Your task to perform on an android device: turn notification dots off Image 0: 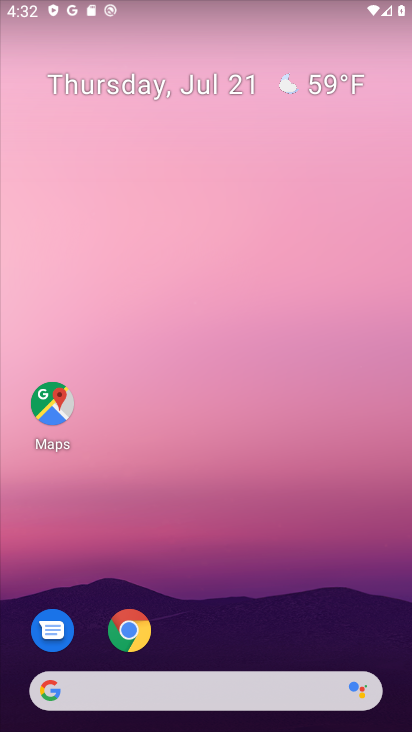
Step 0: drag from (188, 598) to (178, 80)
Your task to perform on an android device: turn notification dots off Image 1: 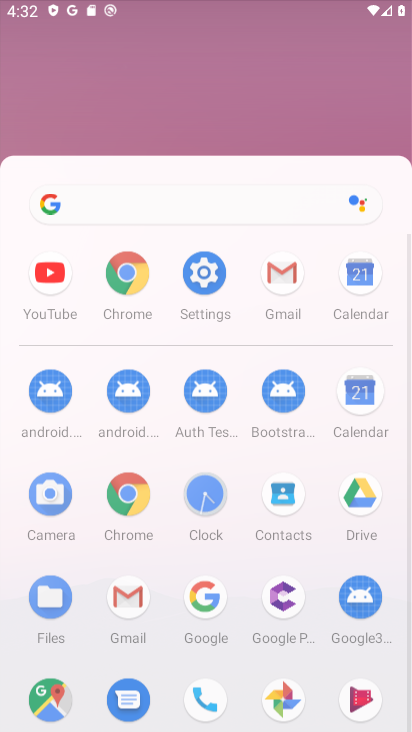
Step 1: drag from (158, 487) to (136, 190)
Your task to perform on an android device: turn notification dots off Image 2: 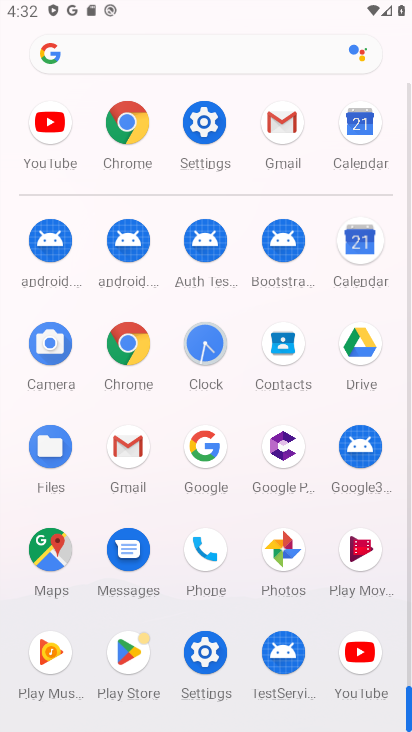
Step 2: click (204, 133)
Your task to perform on an android device: turn notification dots off Image 3: 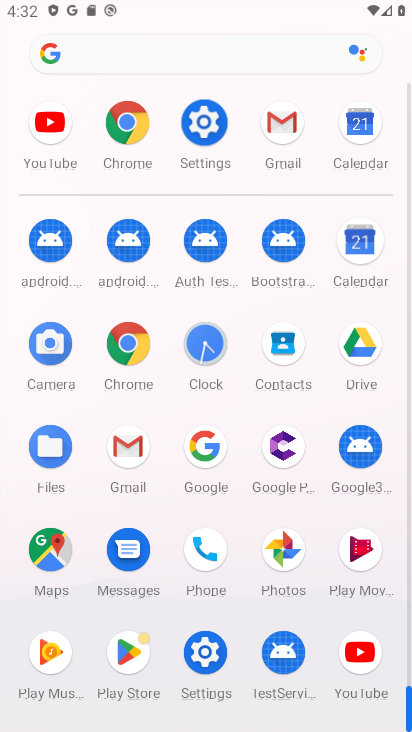
Step 3: click (205, 134)
Your task to perform on an android device: turn notification dots off Image 4: 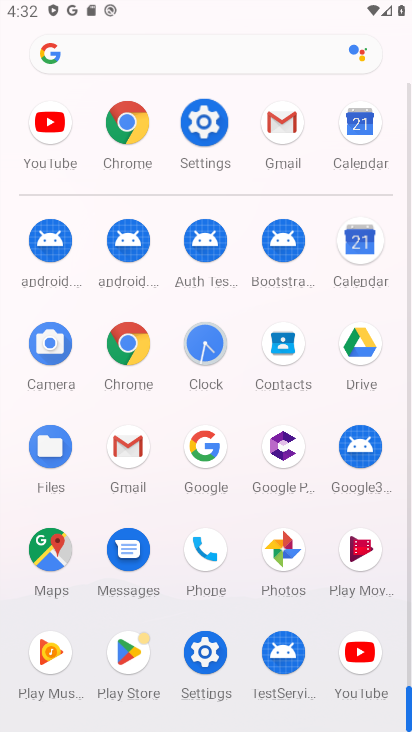
Step 4: click (208, 133)
Your task to perform on an android device: turn notification dots off Image 5: 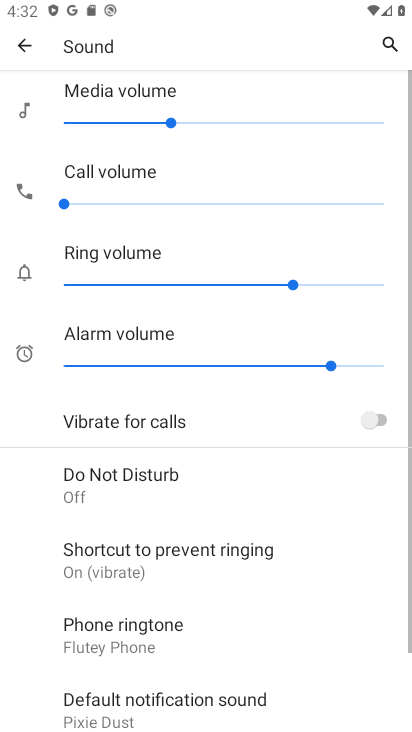
Step 5: click (20, 55)
Your task to perform on an android device: turn notification dots off Image 6: 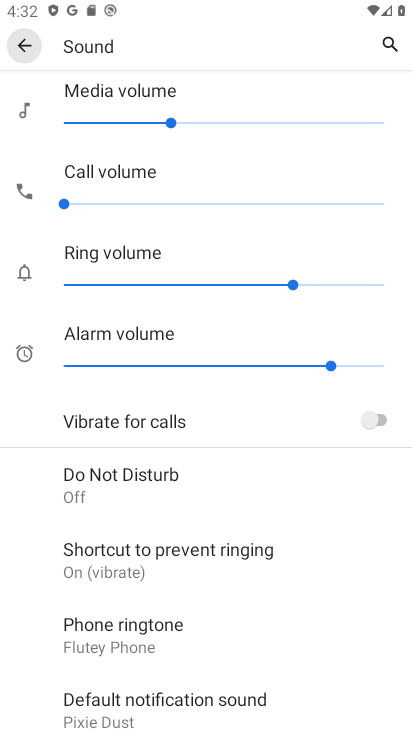
Step 6: click (20, 49)
Your task to perform on an android device: turn notification dots off Image 7: 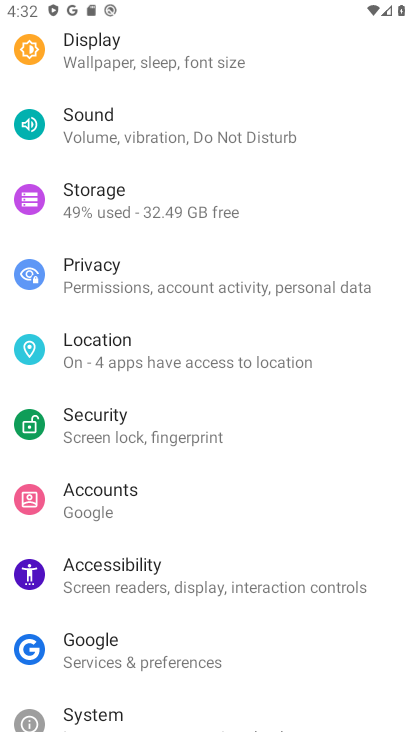
Step 7: drag from (141, 391) to (146, 194)
Your task to perform on an android device: turn notification dots off Image 8: 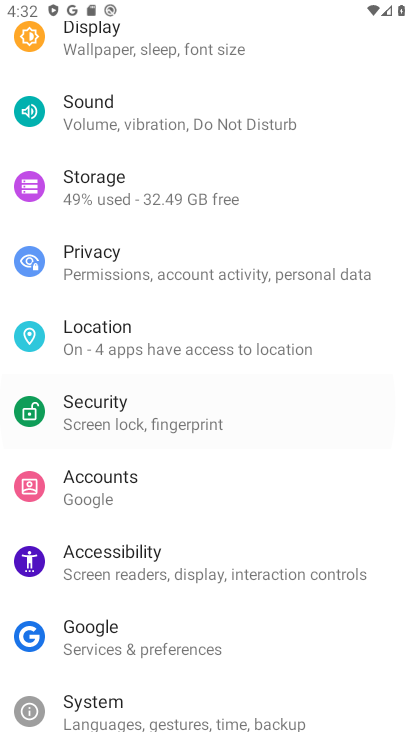
Step 8: drag from (183, 451) to (183, 222)
Your task to perform on an android device: turn notification dots off Image 9: 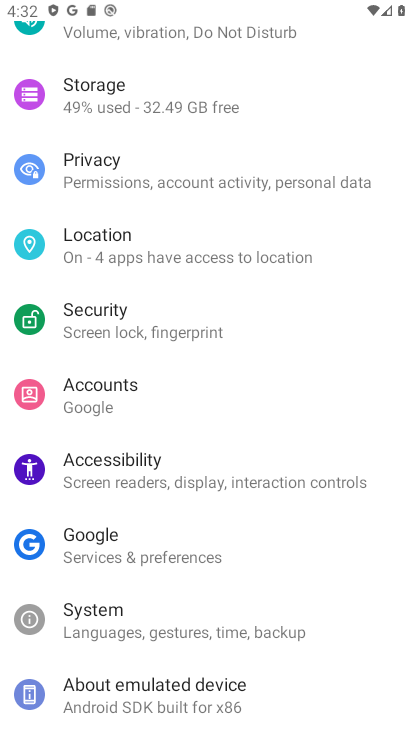
Step 9: drag from (199, 455) to (179, 174)
Your task to perform on an android device: turn notification dots off Image 10: 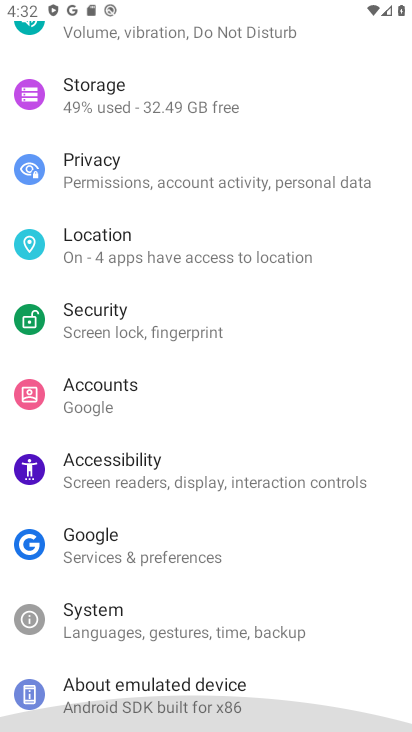
Step 10: drag from (179, 532) to (170, 170)
Your task to perform on an android device: turn notification dots off Image 11: 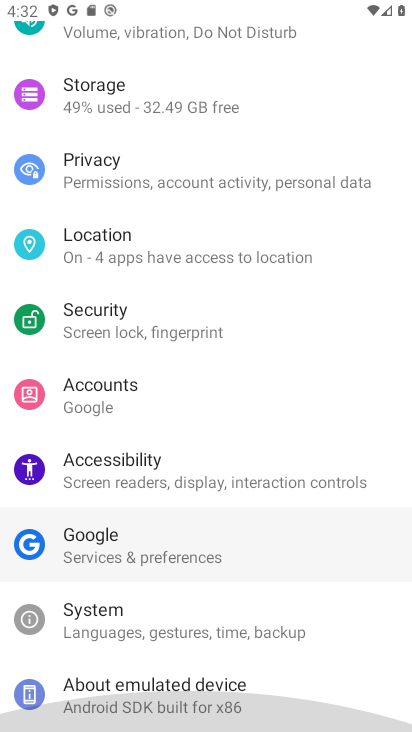
Step 11: drag from (186, 510) to (130, 95)
Your task to perform on an android device: turn notification dots off Image 12: 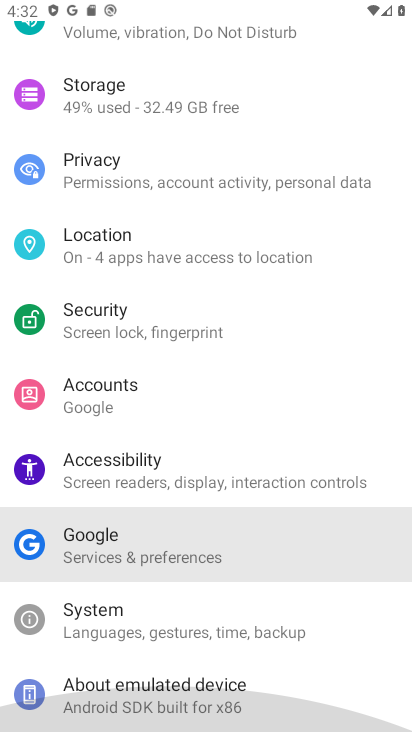
Step 12: drag from (146, 632) to (180, 474)
Your task to perform on an android device: turn notification dots off Image 13: 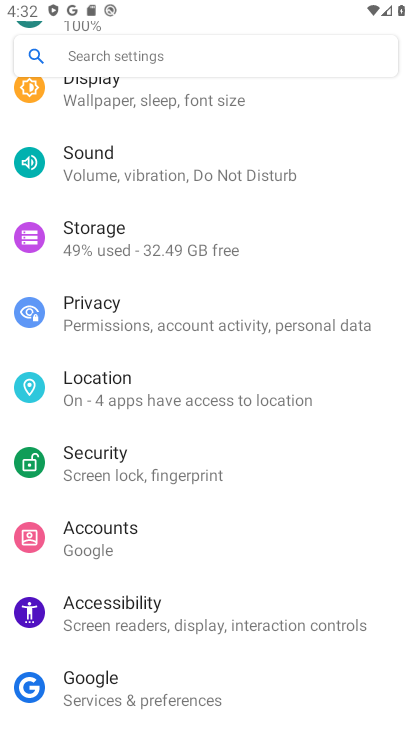
Step 13: drag from (123, 325) to (153, 562)
Your task to perform on an android device: turn notification dots off Image 14: 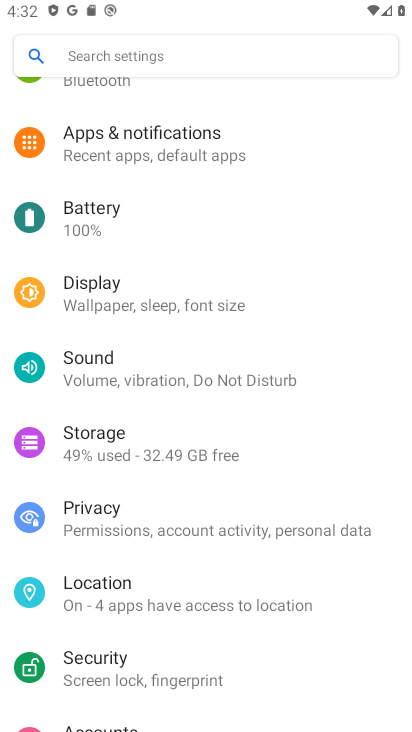
Step 14: drag from (83, 262) to (145, 530)
Your task to perform on an android device: turn notification dots off Image 15: 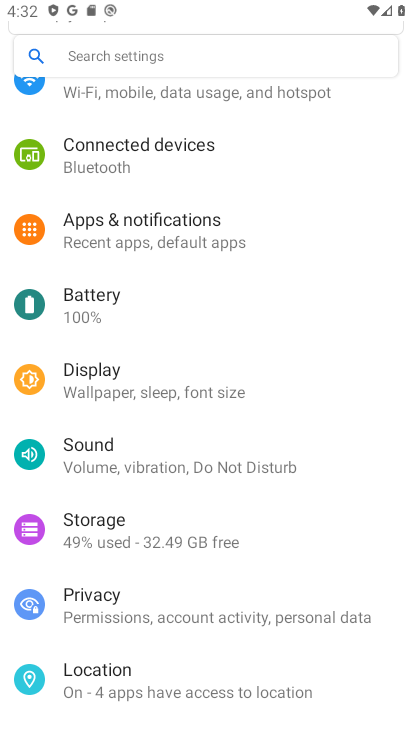
Step 15: drag from (85, 315) to (134, 556)
Your task to perform on an android device: turn notification dots off Image 16: 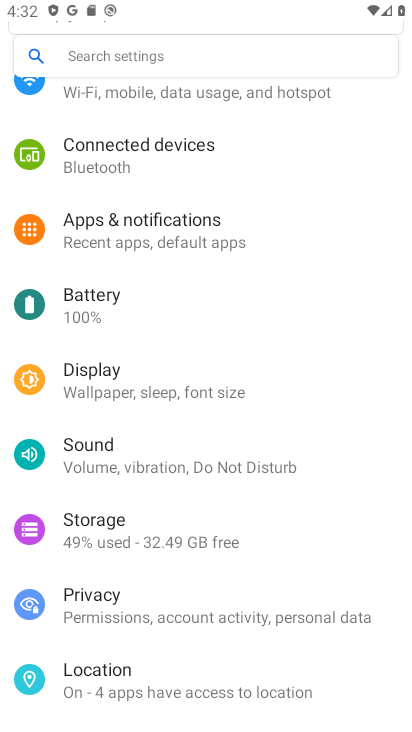
Step 16: click (137, 240)
Your task to perform on an android device: turn notification dots off Image 17: 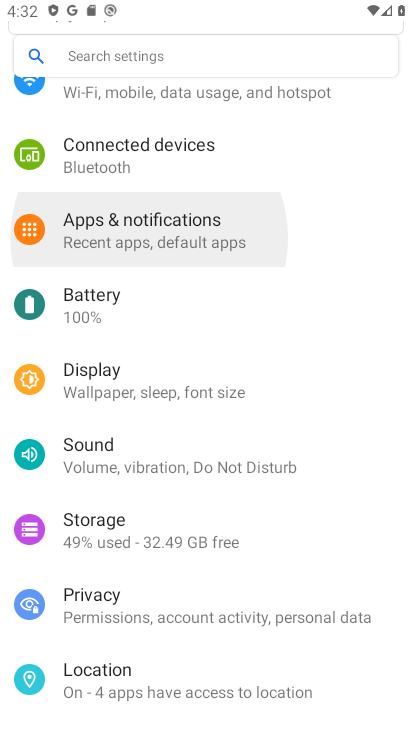
Step 17: click (138, 240)
Your task to perform on an android device: turn notification dots off Image 18: 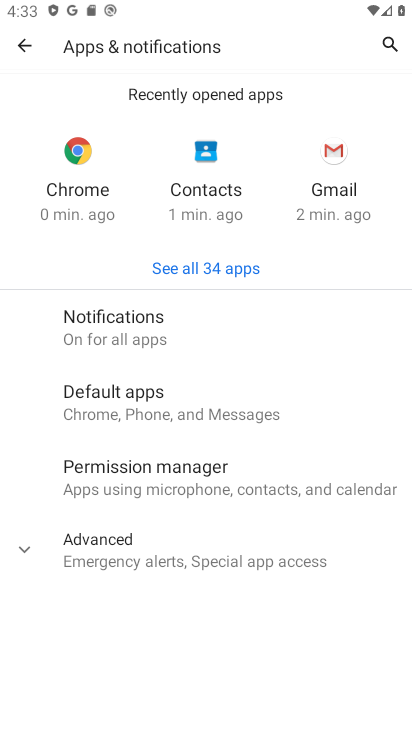
Step 18: click (100, 321)
Your task to perform on an android device: turn notification dots off Image 19: 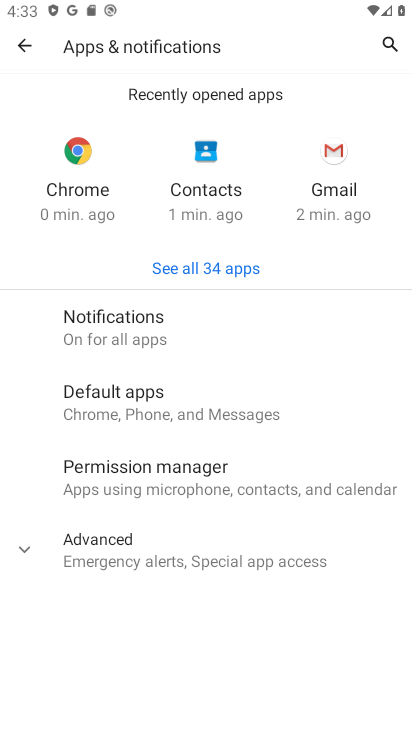
Step 19: click (103, 321)
Your task to perform on an android device: turn notification dots off Image 20: 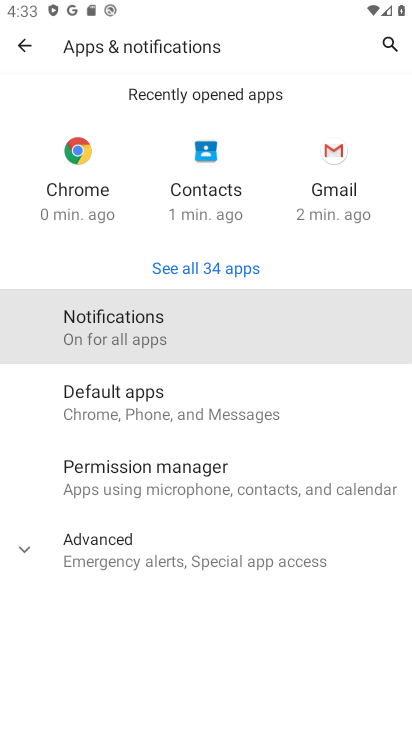
Step 20: click (103, 321)
Your task to perform on an android device: turn notification dots off Image 21: 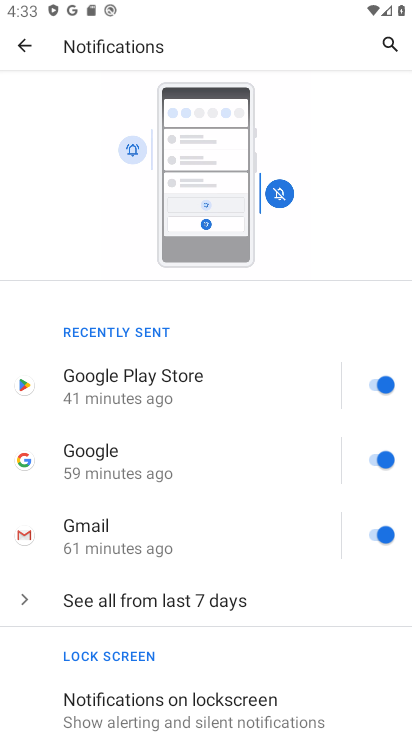
Step 21: drag from (167, 569) to (134, 299)
Your task to perform on an android device: turn notification dots off Image 22: 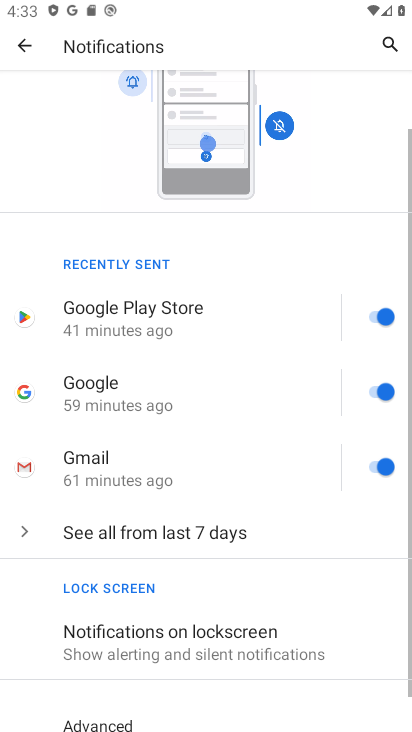
Step 22: drag from (175, 413) to (192, 220)
Your task to perform on an android device: turn notification dots off Image 23: 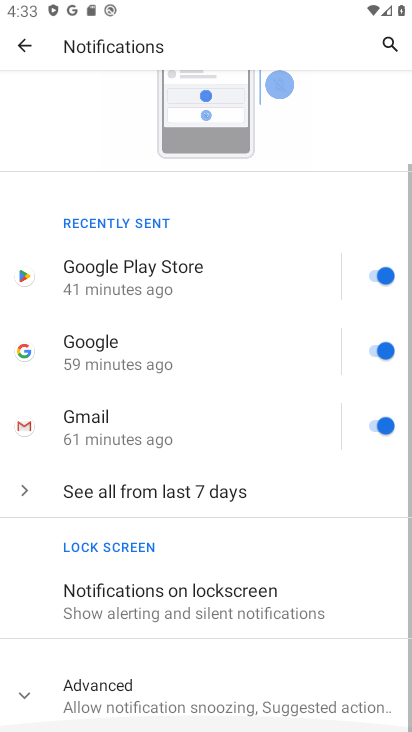
Step 23: drag from (212, 484) to (213, 245)
Your task to perform on an android device: turn notification dots off Image 24: 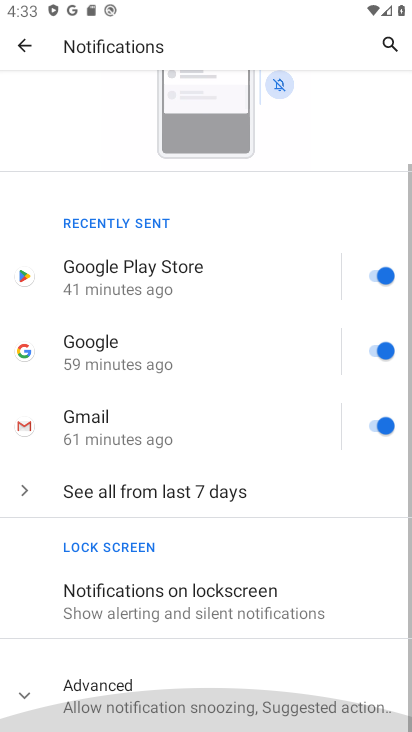
Step 24: drag from (213, 501) to (231, 298)
Your task to perform on an android device: turn notification dots off Image 25: 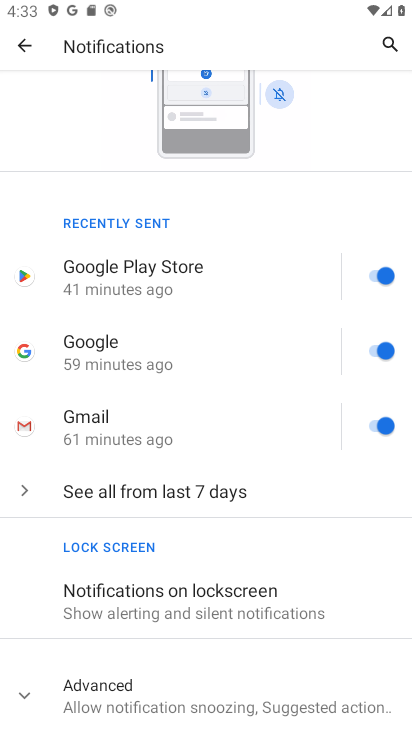
Step 25: click (105, 690)
Your task to perform on an android device: turn notification dots off Image 26: 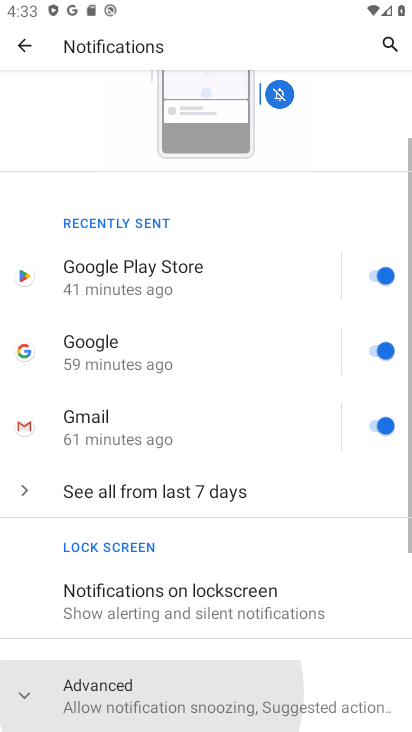
Step 26: click (105, 690)
Your task to perform on an android device: turn notification dots off Image 27: 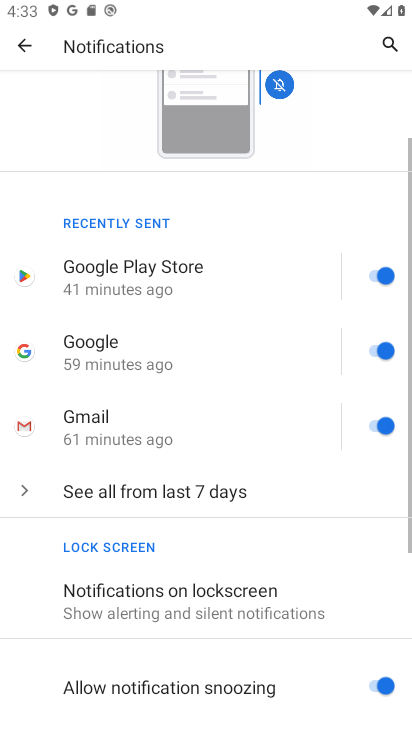
Step 27: drag from (231, 619) to (232, 301)
Your task to perform on an android device: turn notification dots off Image 28: 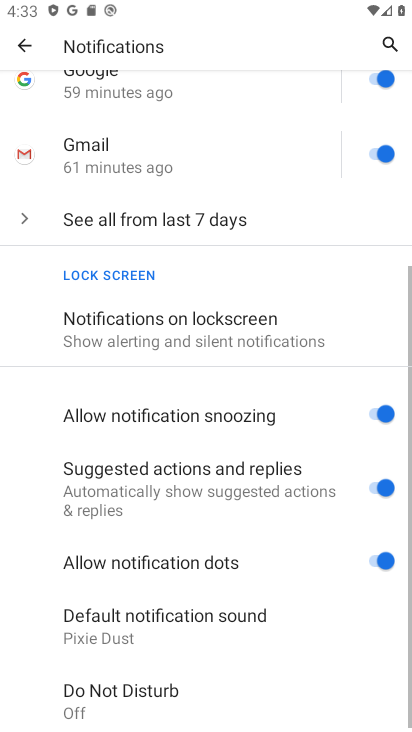
Step 28: drag from (251, 563) to (251, 317)
Your task to perform on an android device: turn notification dots off Image 29: 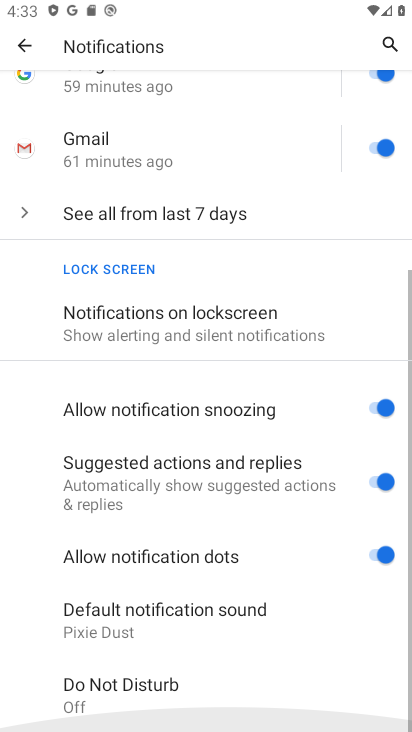
Step 29: drag from (240, 577) to (243, 246)
Your task to perform on an android device: turn notification dots off Image 30: 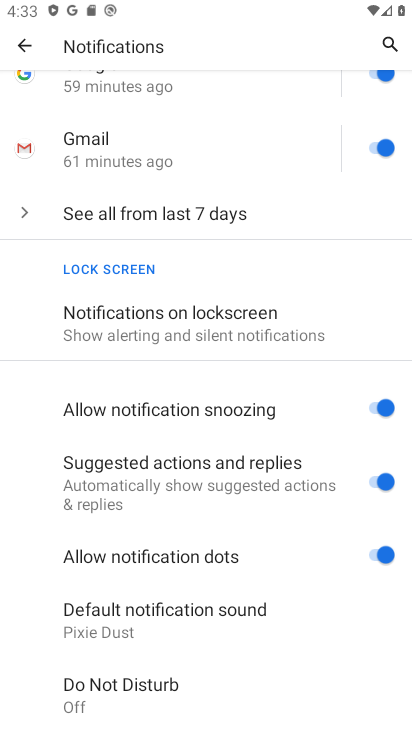
Step 30: click (393, 548)
Your task to perform on an android device: turn notification dots off Image 31: 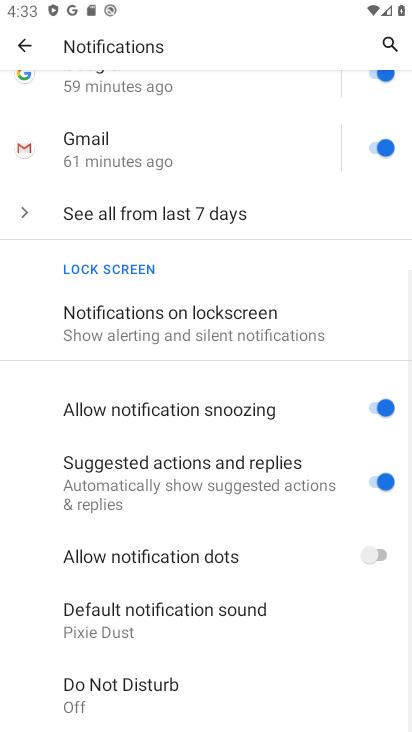
Step 31: task complete